Your task to perform on an android device: When is my next appointment? Image 0: 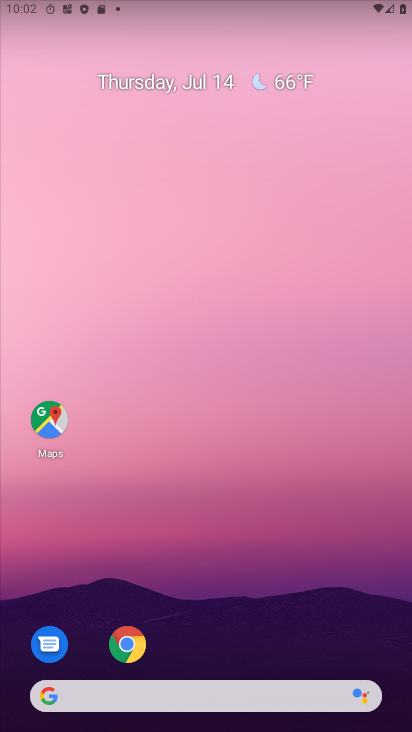
Step 0: drag from (265, 506) to (298, 81)
Your task to perform on an android device: When is my next appointment? Image 1: 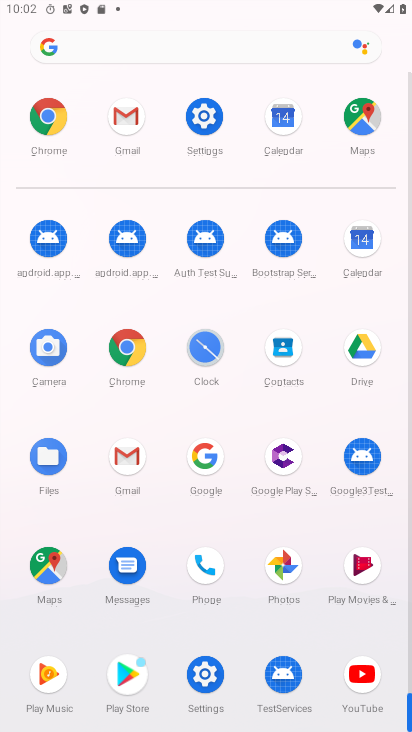
Step 1: click (50, 128)
Your task to perform on an android device: When is my next appointment? Image 2: 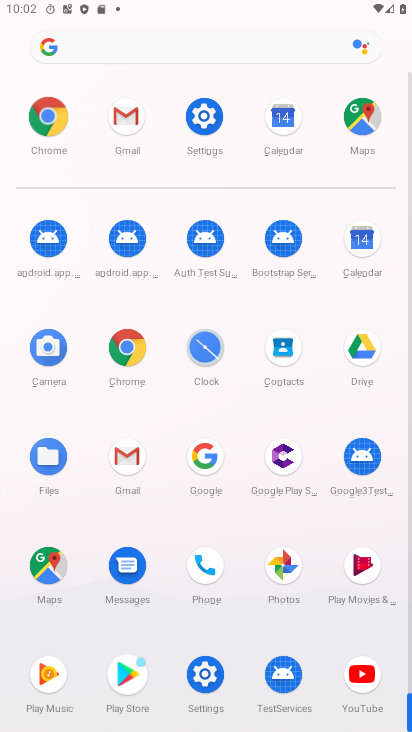
Step 2: click (50, 128)
Your task to perform on an android device: When is my next appointment? Image 3: 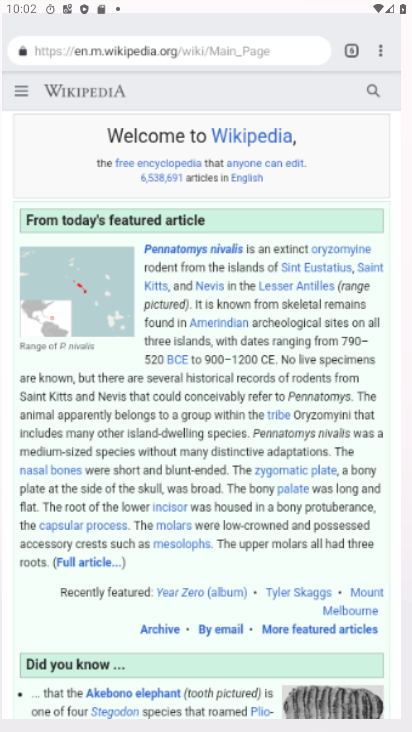
Step 3: click (52, 130)
Your task to perform on an android device: When is my next appointment? Image 4: 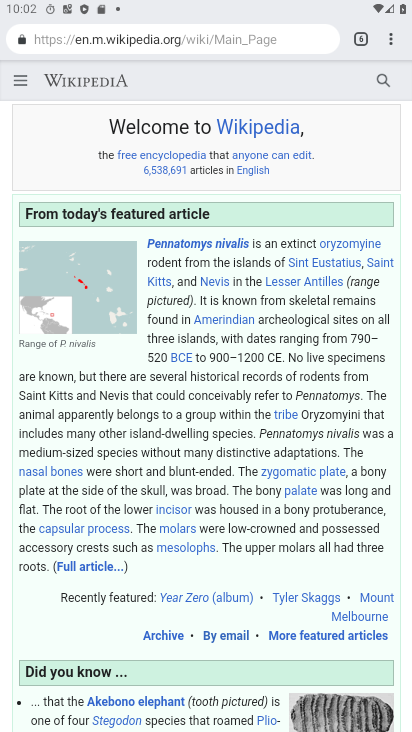
Step 4: drag from (387, 40) to (253, 491)
Your task to perform on an android device: When is my next appointment? Image 5: 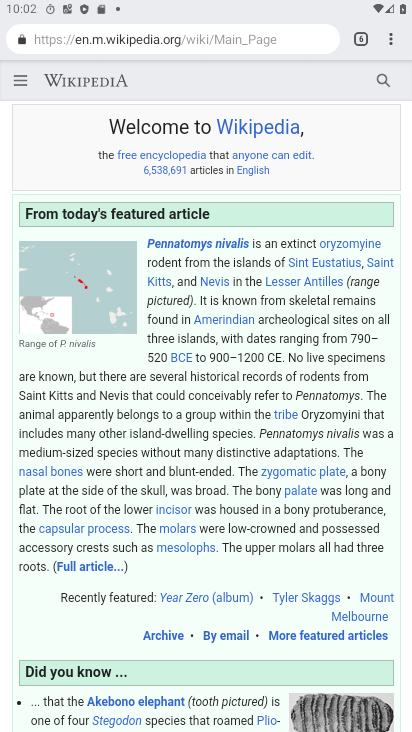
Step 5: click (262, 470)
Your task to perform on an android device: When is my next appointment? Image 6: 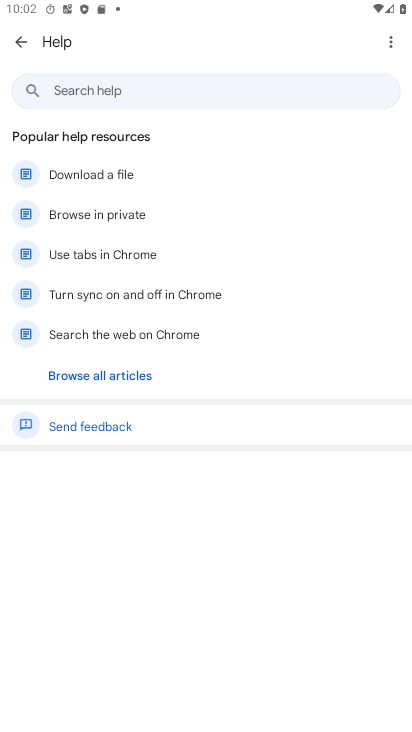
Step 6: click (22, 48)
Your task to perform on an android device: When is my next appointment? Image 7: 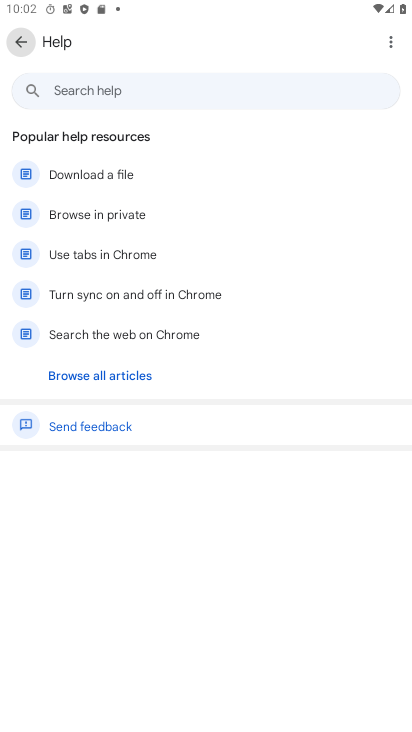
Step 7: click (25, 49)
Your task to perform on an android device: When is my next appointment? Image 8: 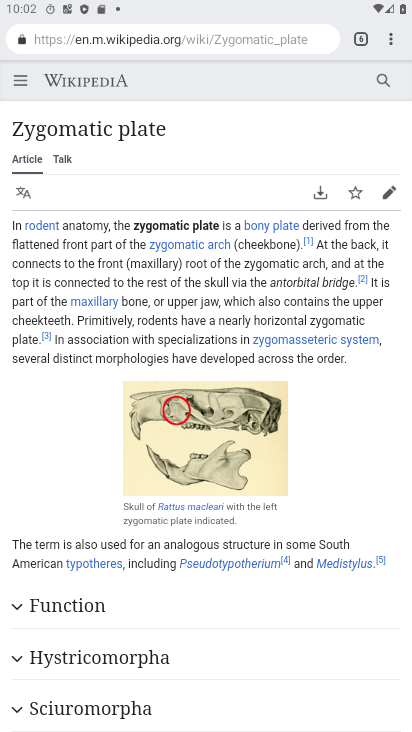
Step 8: drag from (385, 41) to (366, 138)
Your task to perform on an android device: When is my next appointment? Image 9: 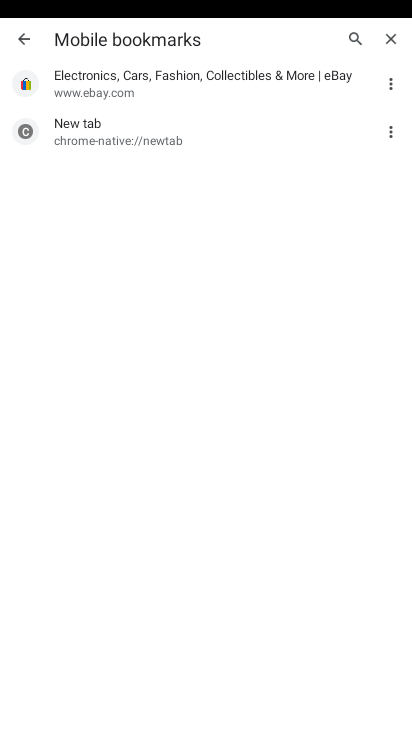
Step 9: press home button
Your task to perform on an android device: When is my next appointment? Image 10: 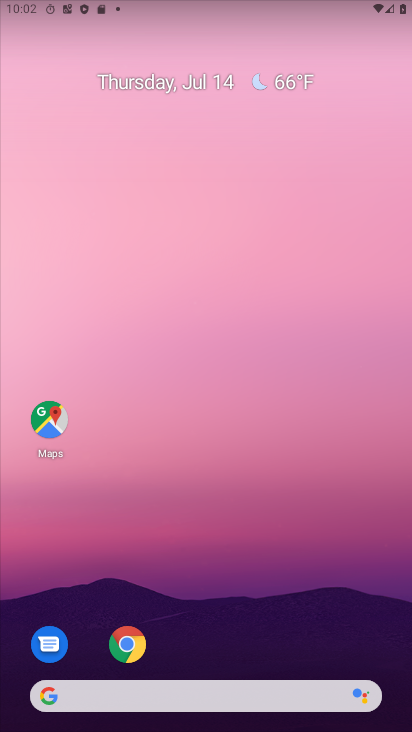
Step 10: drag from (201, 575) to (201, 15)
Your task to perform on an android device: When is my next appointment? Image 11: 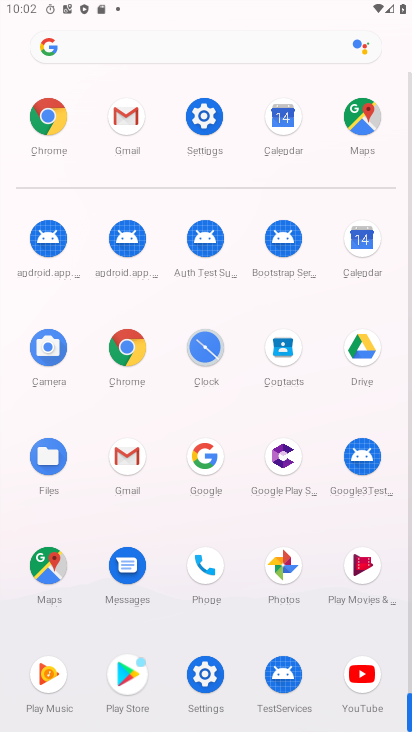
Step 11: click (360, 241)
Your task to perform on an android device: When is my next appointment? Image 12: 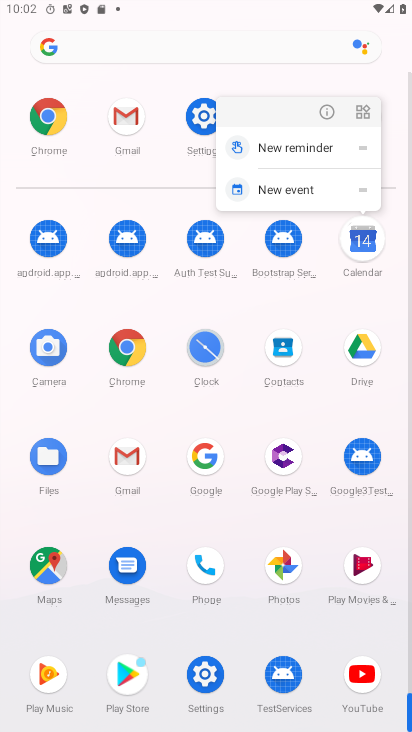
Step 12: click (360, 241)
Your task to perform on an android device: When is my next appointment? Image 13: 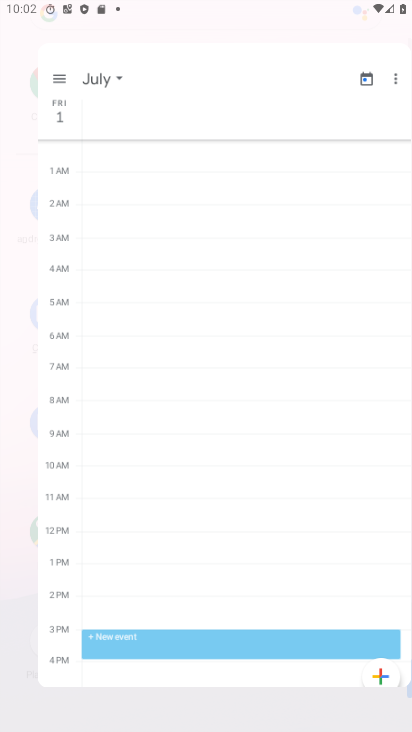
Step 13: click (360, 240)
Your task to perform on an android device: When is my next appointment? Image 14: 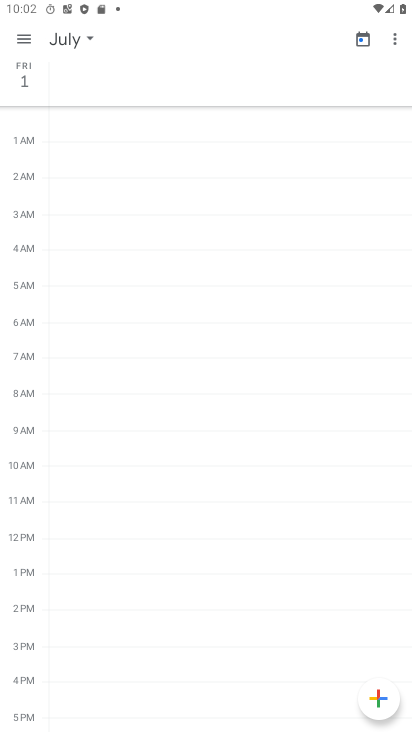
Step 14: click (360, 240)
Your task to perform on an android device: When is my next appointment? Image 15: 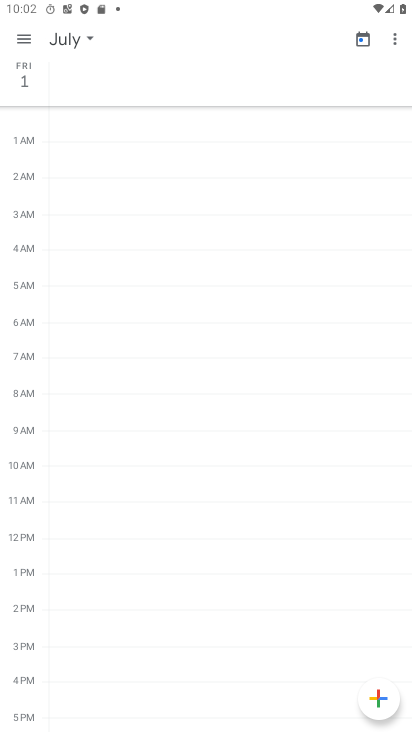
Step 15: click (91, 44)
Your task to perform on an android device: When is my next appointment? Image 16: 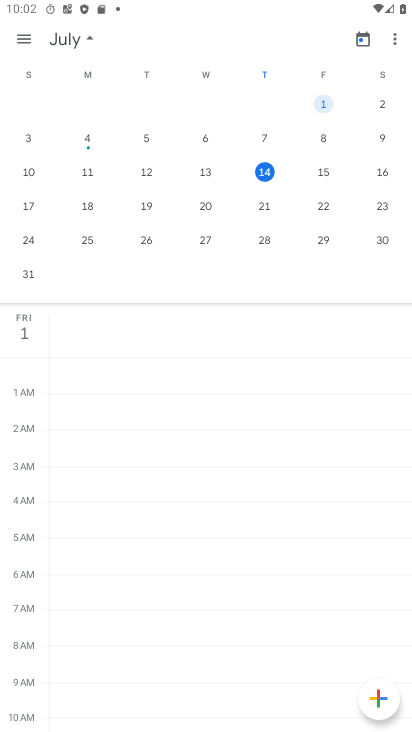
Step 16: click (319, 162)
Your task to perform on an android device: When is my next appointment? Image 17: 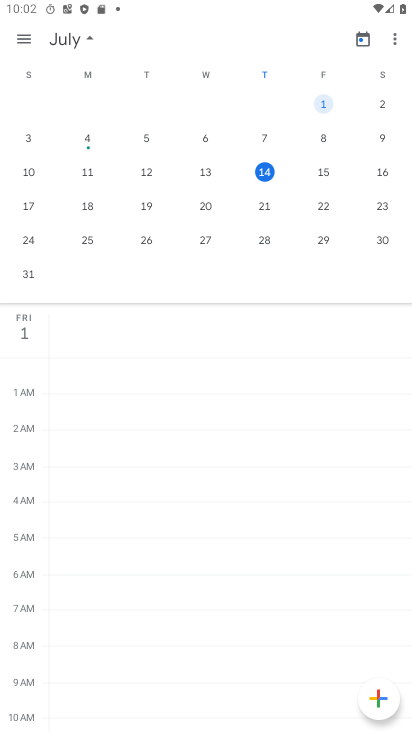
Step 17: click (324, 175)
Your task to perform on an android device: When is my next appointment? Image 18: 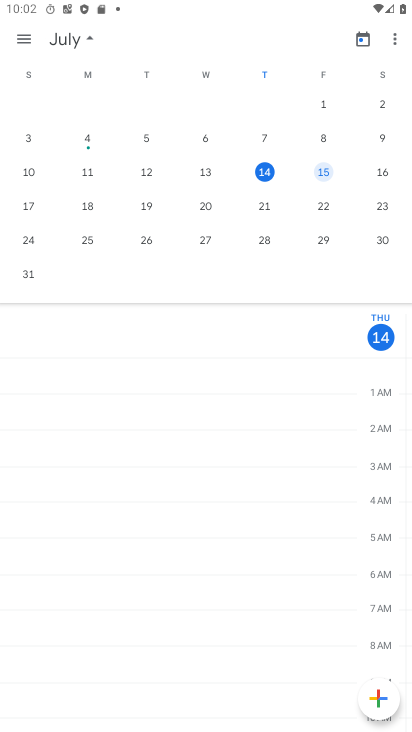
Step 18: click (324, 179)
Your task to perform on an android device: When is my next appointment? Image 19: 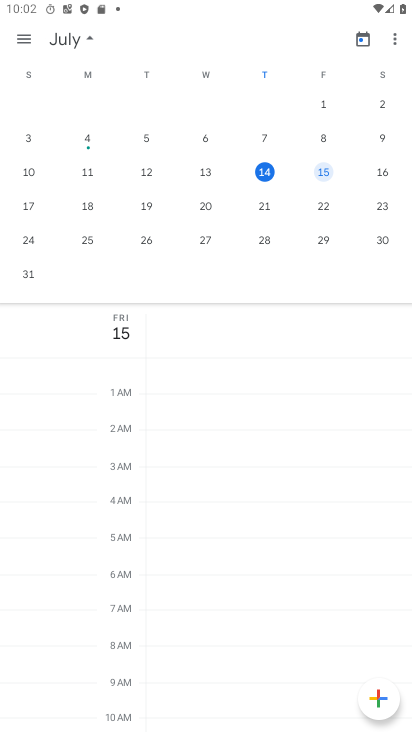
Step 19: click (327, 177)
Your task to perform on an android device: When is my next appointment? Image 20: 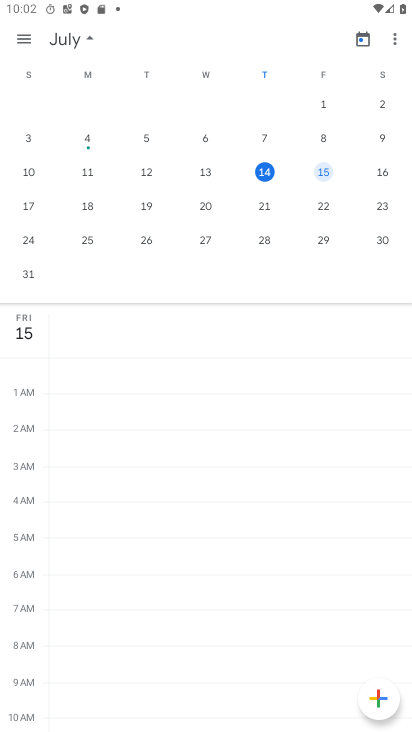
Step 20: click (320, 155)
Your task to perform on an android device: When is my next appointment? Image 21: 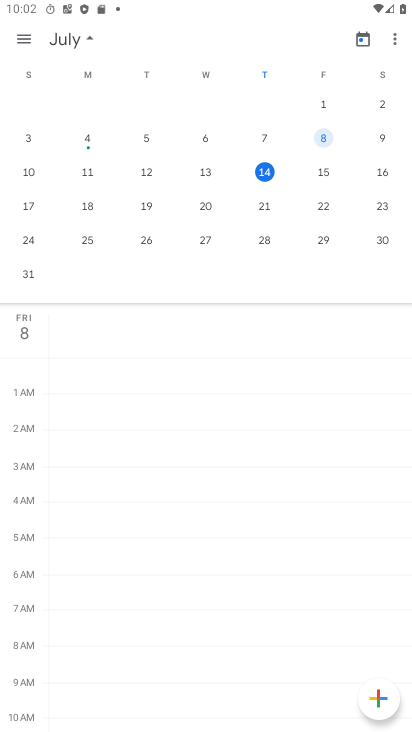
Step 21: click (380, 172)
Your task to perform on an android device: When is my next appointment? Image 22: 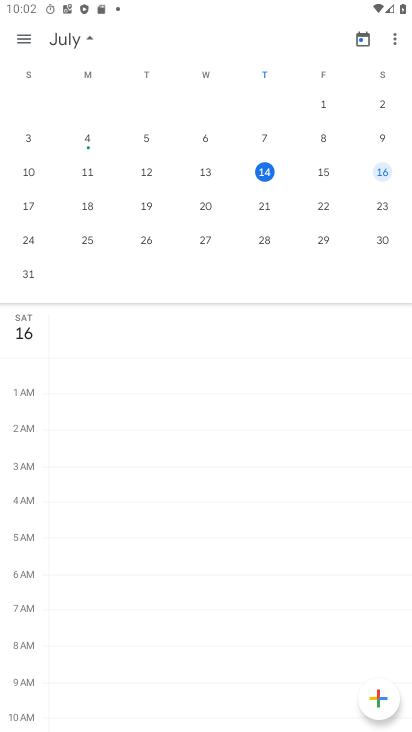
Step 22: click (328, 172)
Your task to perform on an android device: When is my next appointment? Image 23: 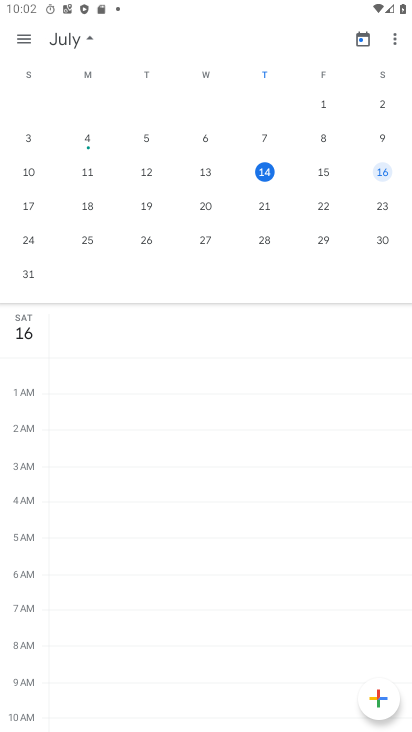
Step 23: click (328, 172)
Your task to perform on an android device: When is my next appointment? Image 24: 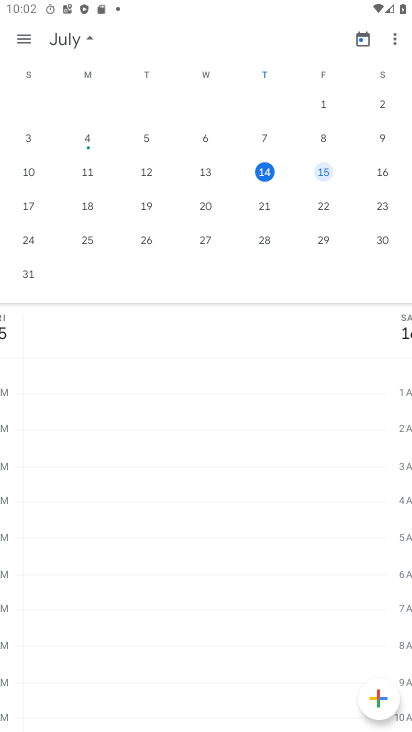
Step 24: click (328, 172)
Your task to perform on an android device: When is my next appointment? Image 25: 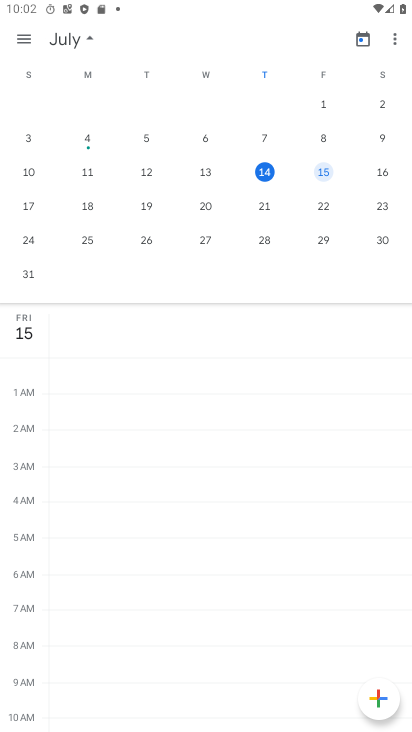
Step 25: task complete